Your task to perform on an android device: open app "Pluto TV - Live TV and Movies" Image 0: 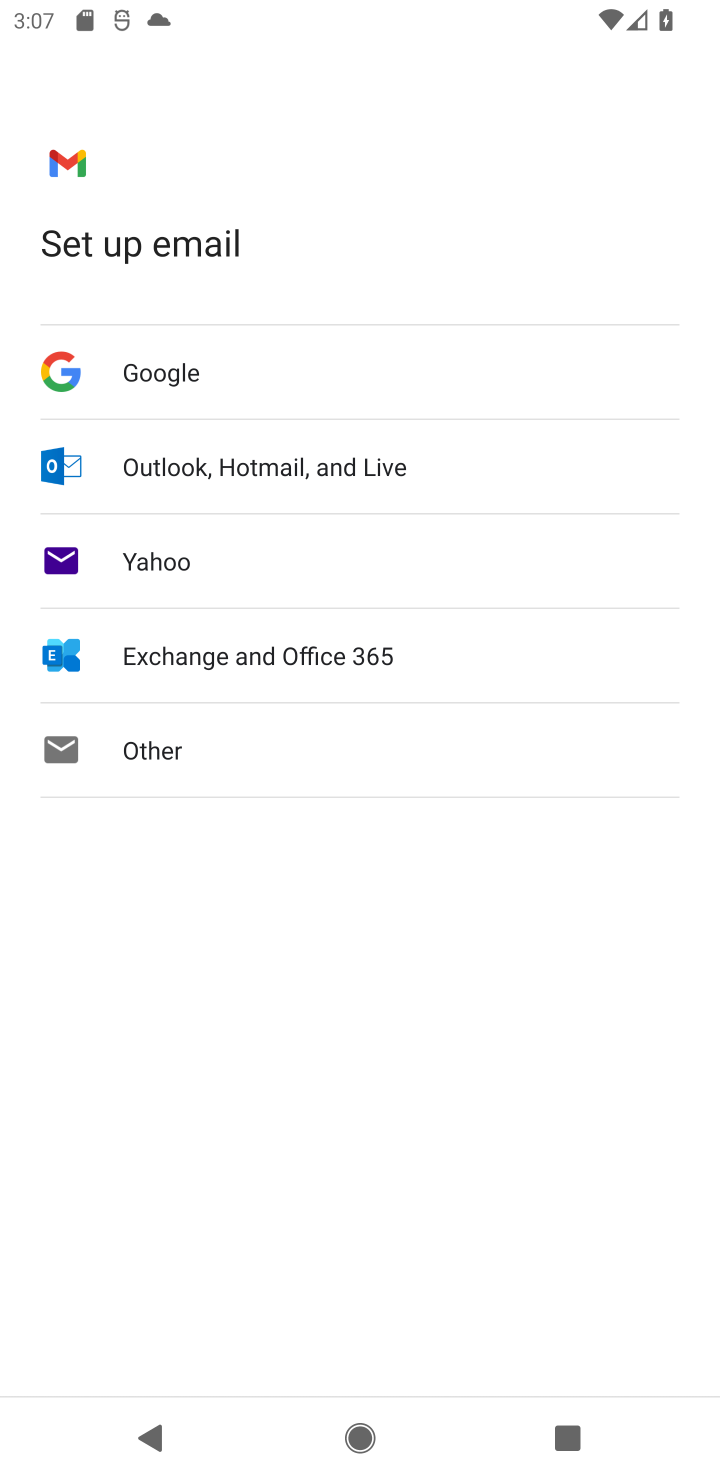
Step 0: press home button
Your task to perform on an android device: open app "Pluto TV - Live TV and Movies" Image 1: 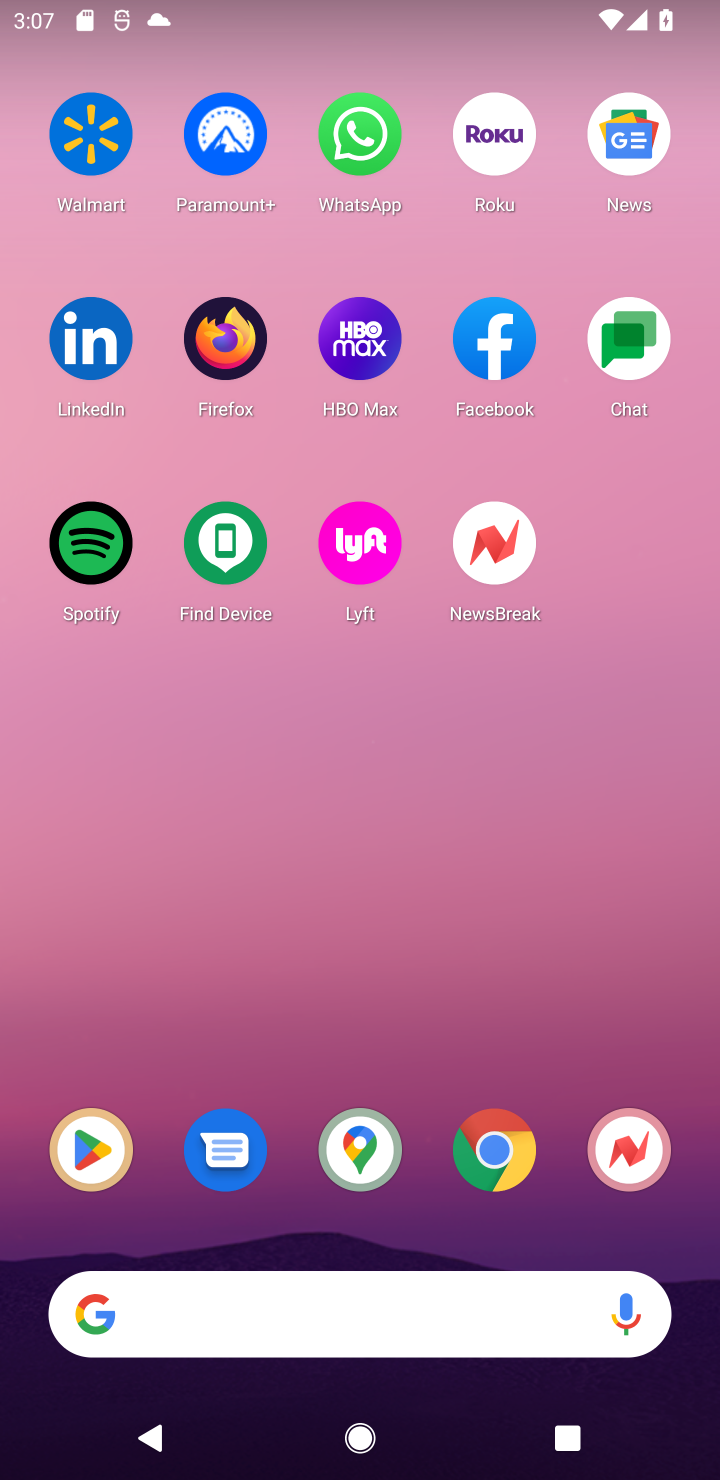
Step 1: click (82, 1183)
Your task to perform on an android device: open app "Pluto TV - Live TV and Movies" Image 2: 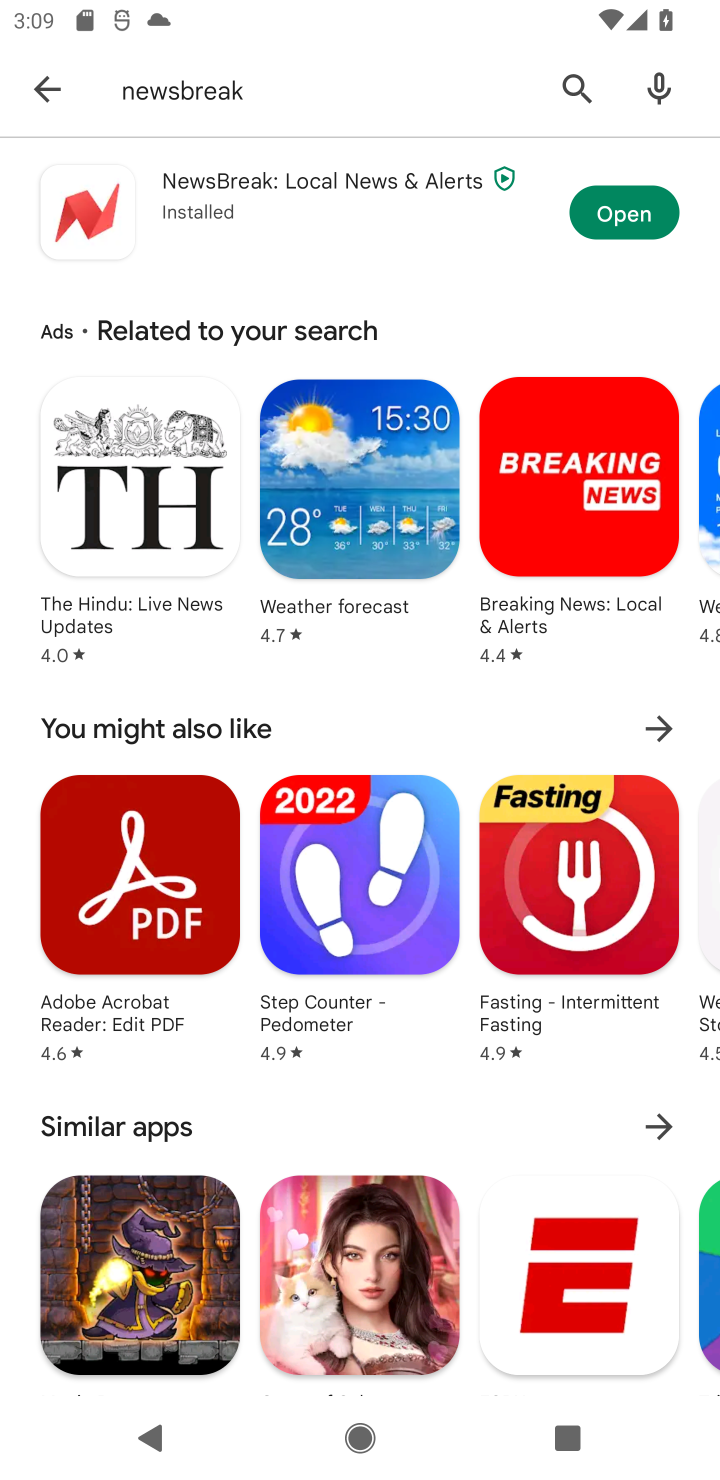
Step 2: click (579, 95)
Your task to perform on an android device: open app "Pluto TV - Live TV and Movies" Image 3: 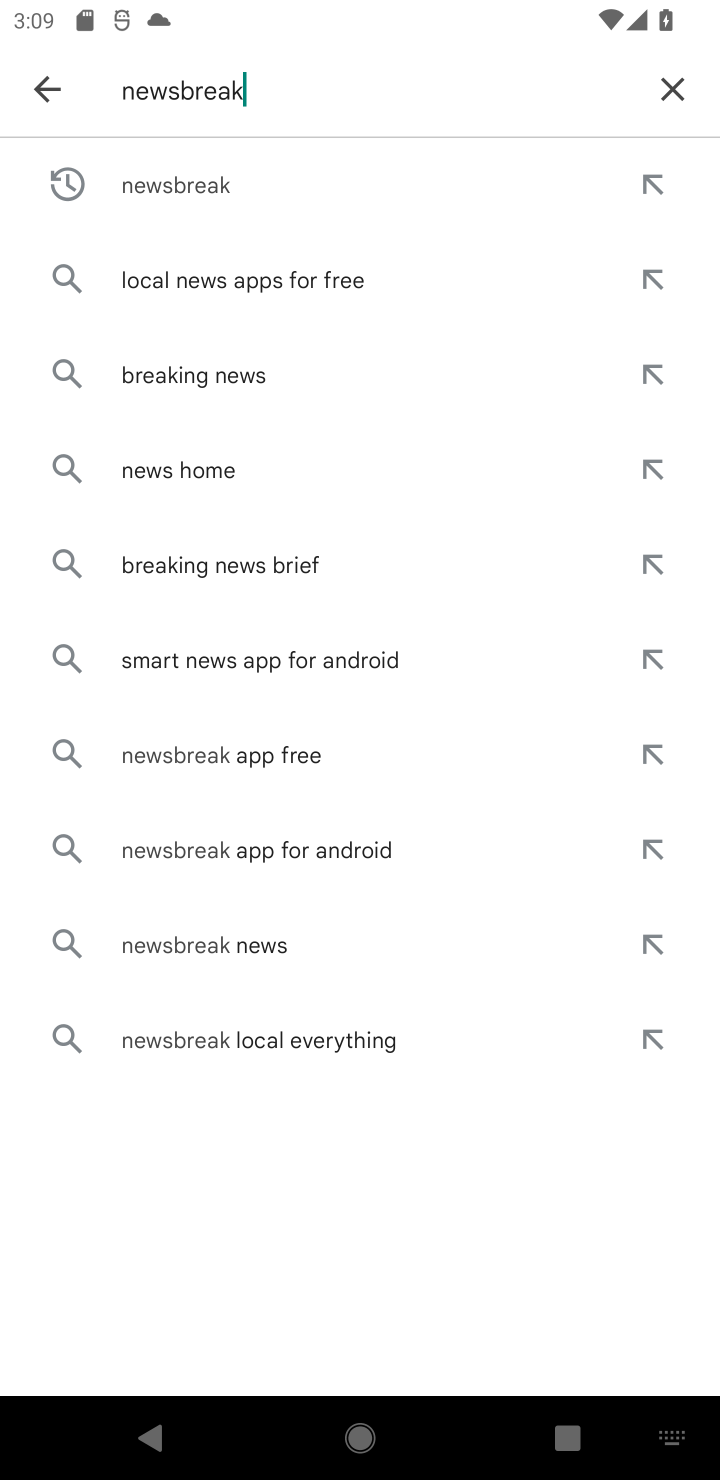
Step 3: click (661, 93)
Your task to perform on an android device: open app "Pluto TV - Live TV and Movies" Image 4: 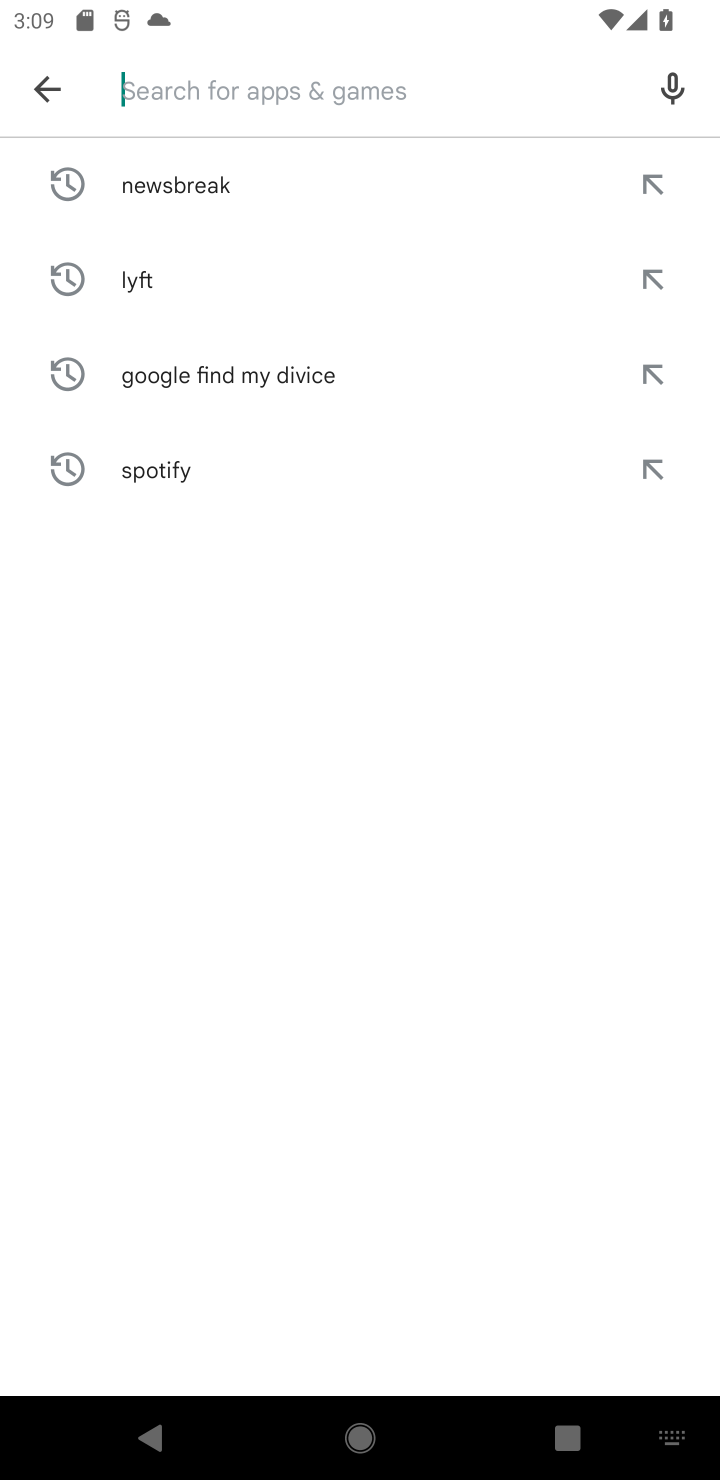
Step 4: type "pluto"
Your task to perform on an android device: open app "Pluto TV - Live TV and Movies" Image 5: 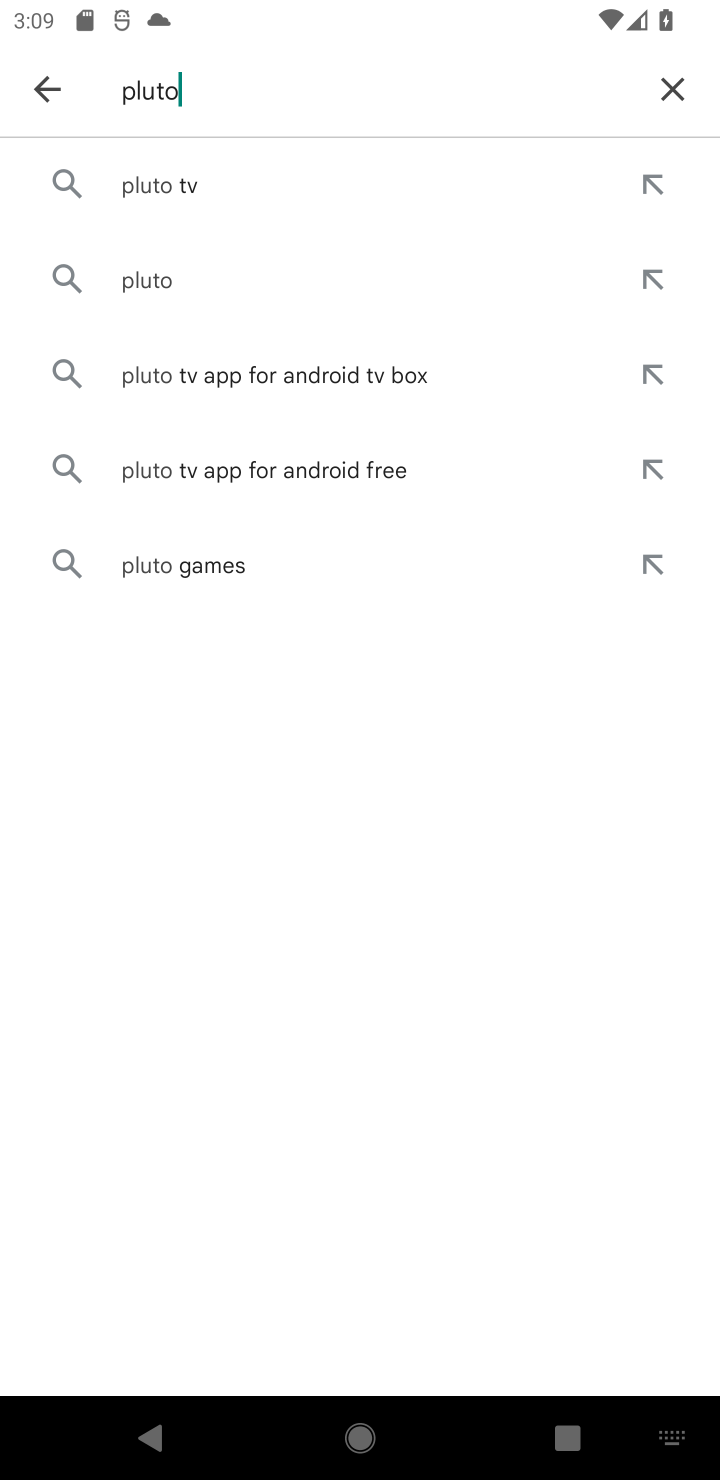
Step 5: click (314, 182)
Your task to perform on an android device: open app "Pluto TV - Live TV and Movies" Image 6: 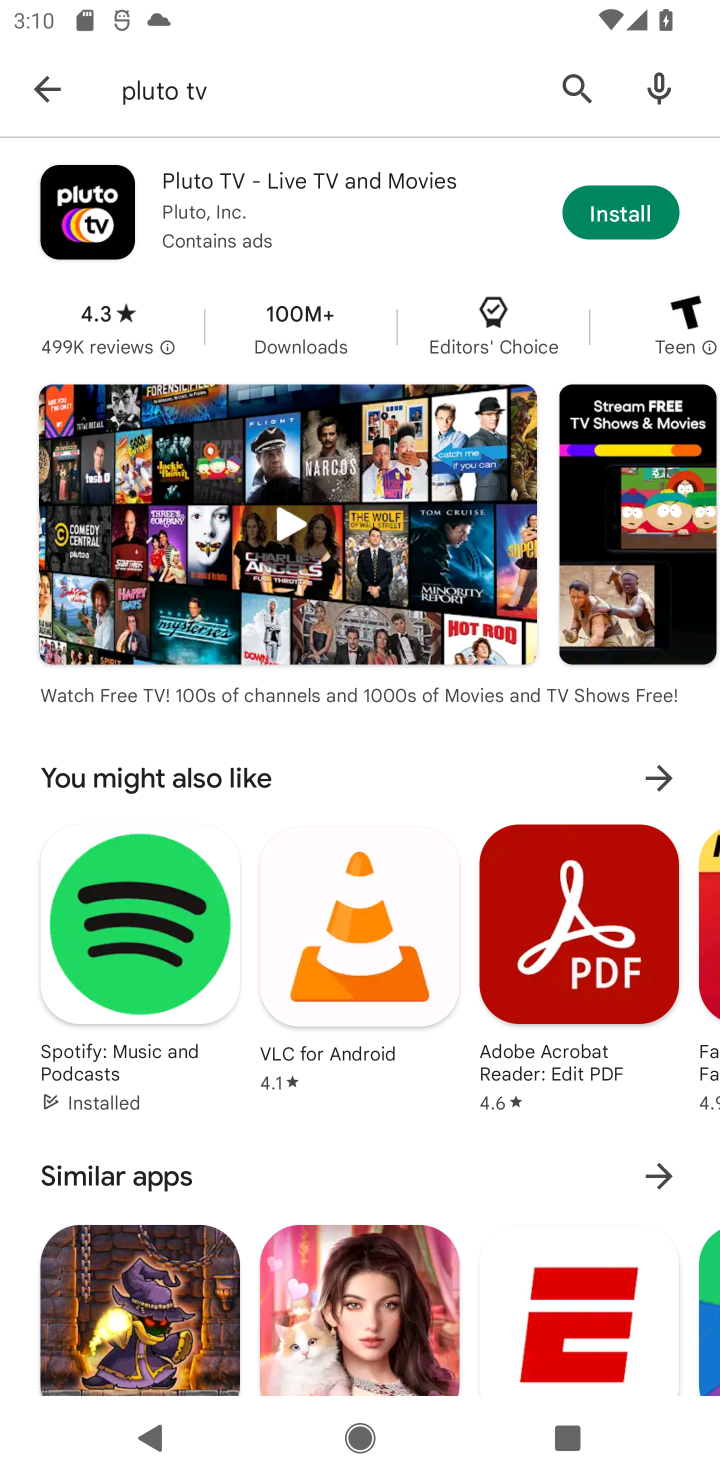
Step 6: click (629, 211)
Your task to perform on an android device: open app "Pluto TV - Live TV and Movies" Image 7: 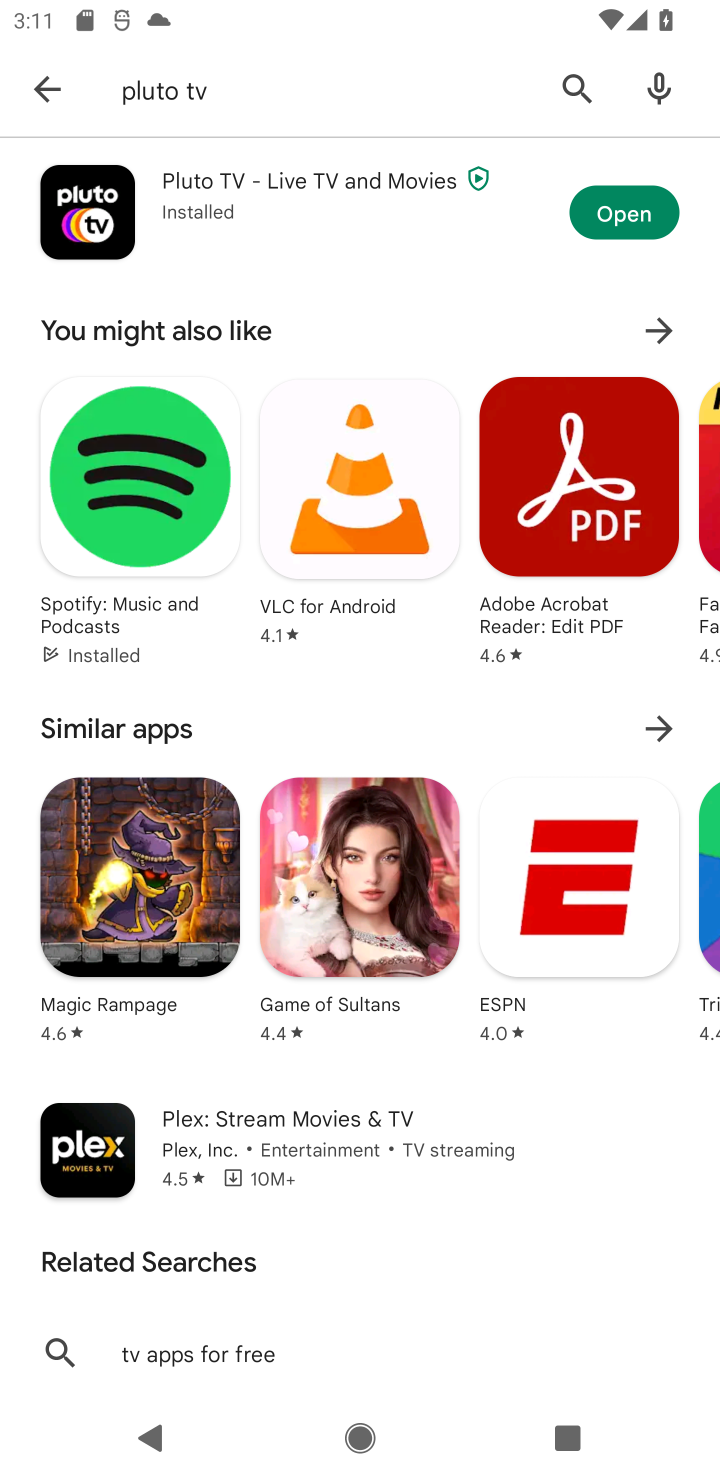
Step 7: task complete